Your task to perform on an android device: check storage Image 0: 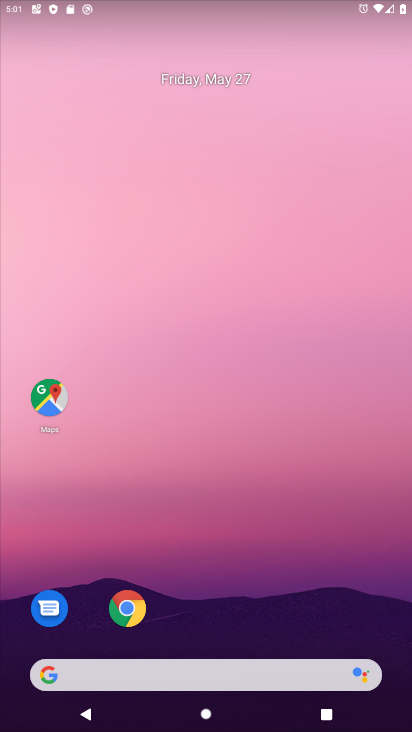
Step 0: drag from (264, 505) to (276, 62)
Your task to perform on an android device: check storage Image 1: 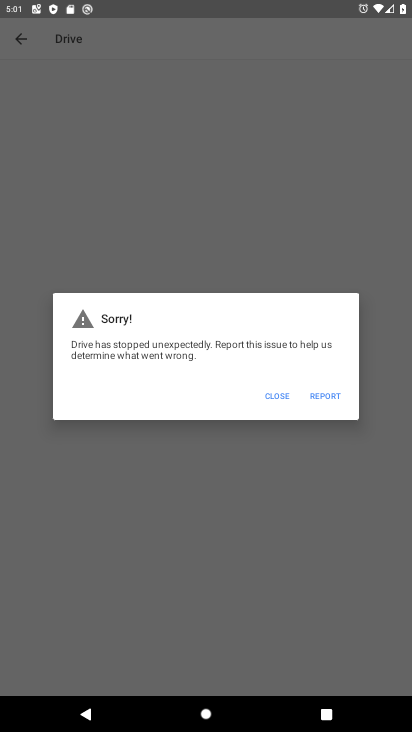
Step 1: press home button
Your task to perform on an android device: check storage Image 2: 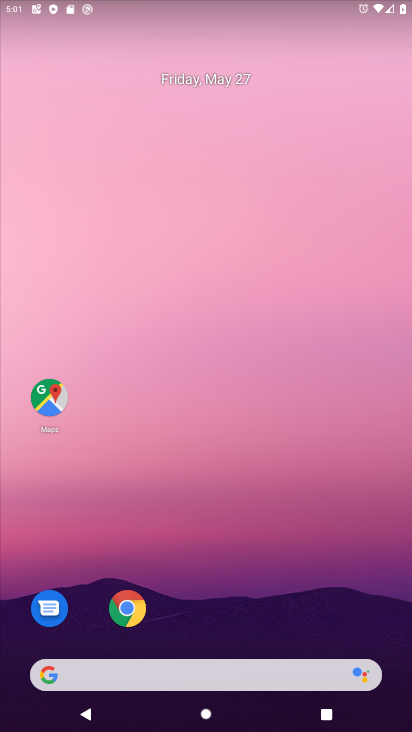
Step 2: drag from (246, 660) to (278, 297)
Your task to perform on an android device: check storage Image 3: 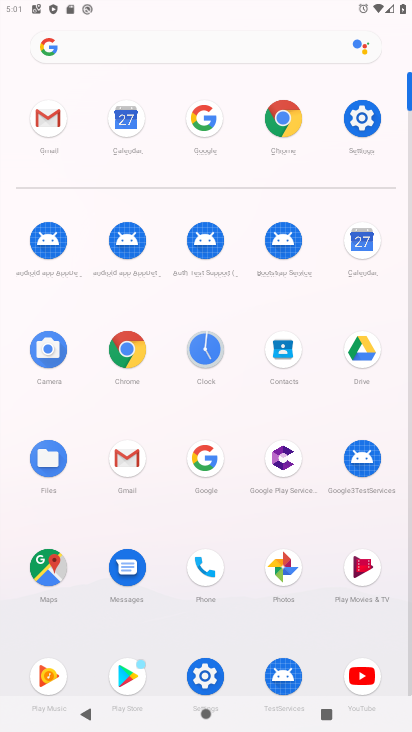
Step 3: click (363, 119)
Your task to perform on an android device: check storage Image 4: 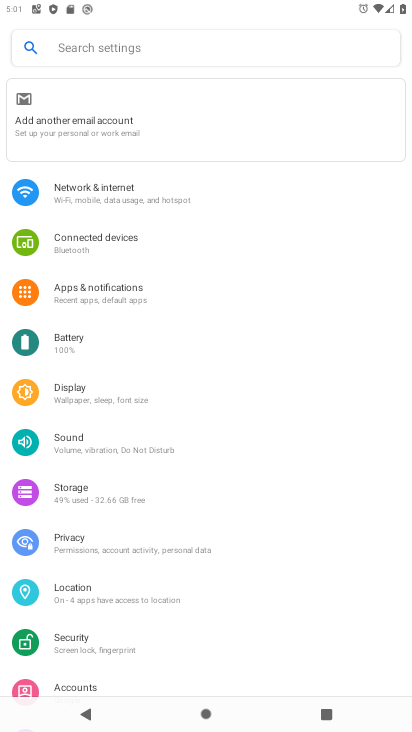
Step 4: click (76, 481)
Your task to perform on an android device: check storage Image 5: 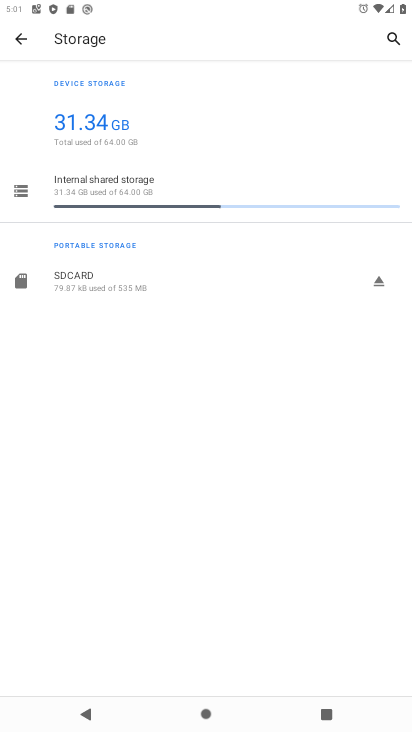
Step 5: task complete